Your task to perform on an android device: Open eBay Image 0: 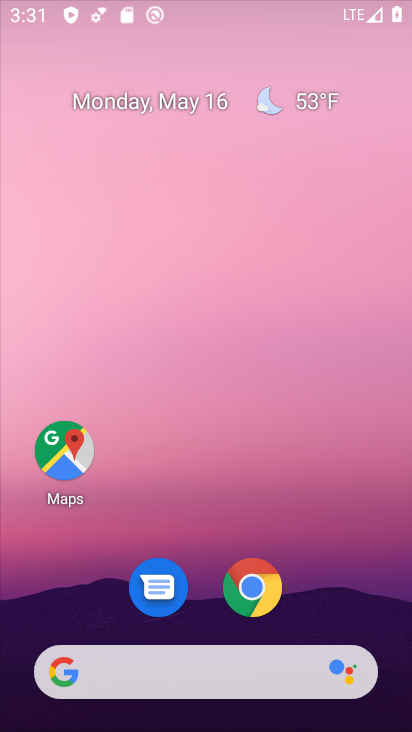
Step 0: drag from (121, 583) to (249, 108)
Your task to perform on an android device: Open eBay Image 1: 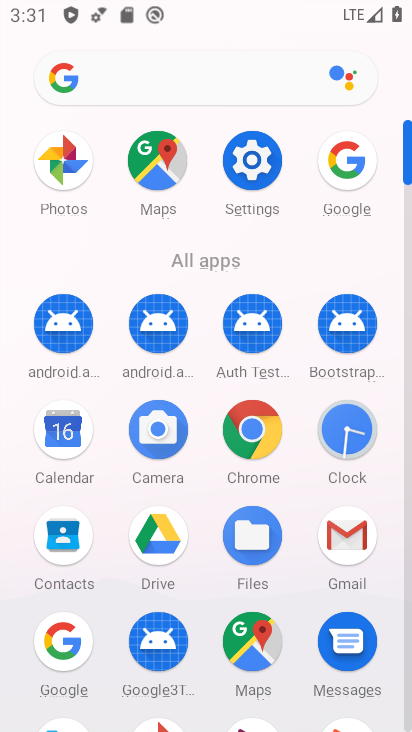
Step 1: click (264, 420)
Your task to perform on an android device: Open eBay Image 2: 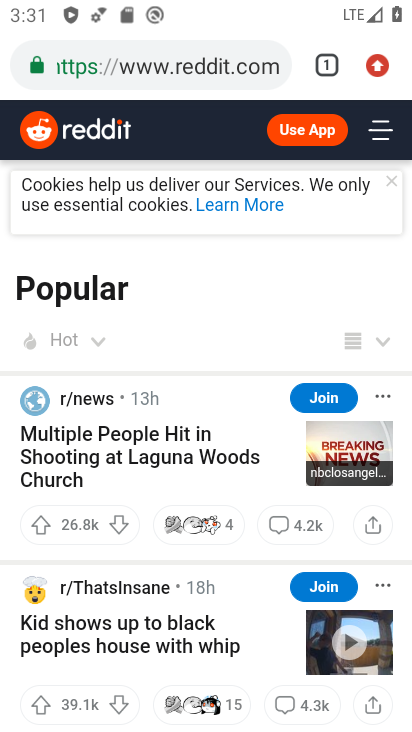
Step 2: drag from (380, 63) to (325, 190)
Your task to perform on an android device: Open eBay Image 3: 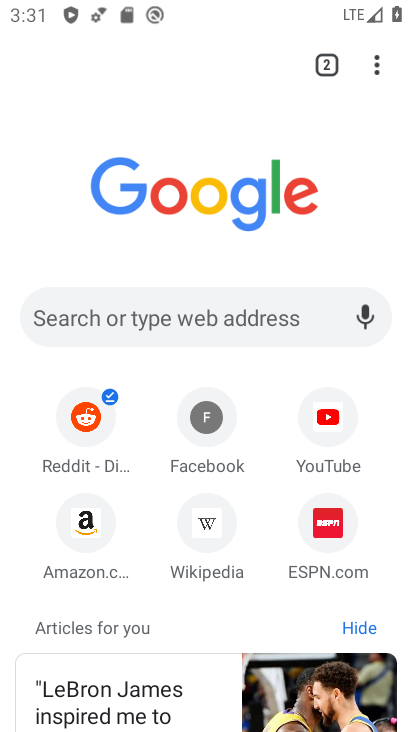
Step 3: click (179, 338)
Your task to perform on an android device: Open eBay Image 4: 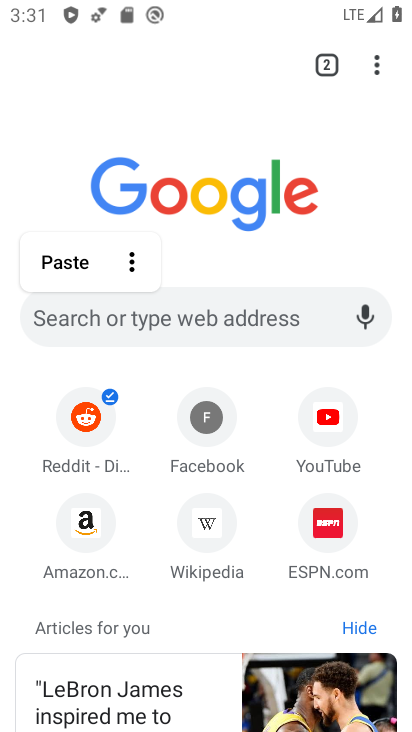
Step 4: click (137, 316)
Your task to perform on an android device: Open eBay Image 5: 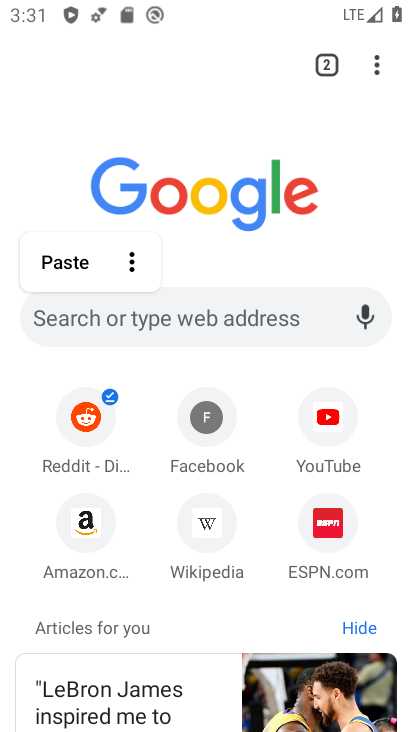
Step 5: type "ebay"
Your task to perform on an android device: Open eBay Image 6: 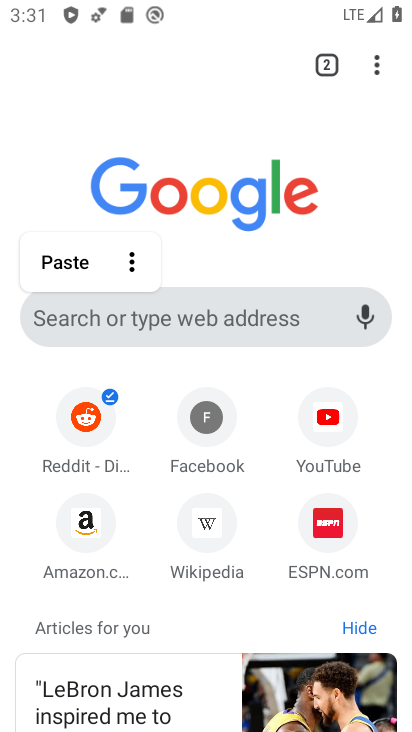
Step 6: click (227, 331)
Your task to perform on an android device: Open eBay Image 7: 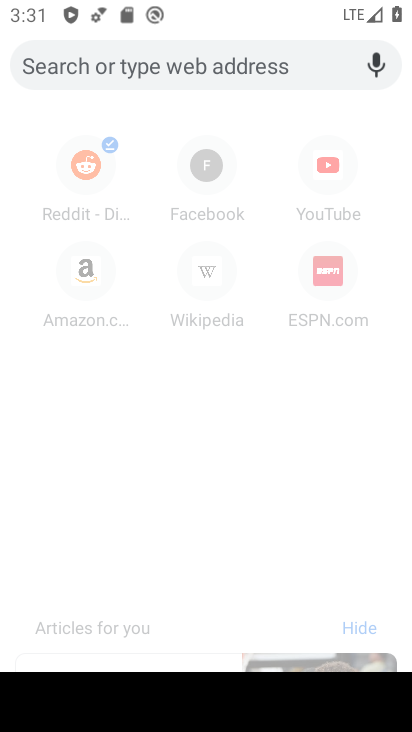
Step 7: type "eBay"
Your task to perform on an android device: Open eBay Image 8: 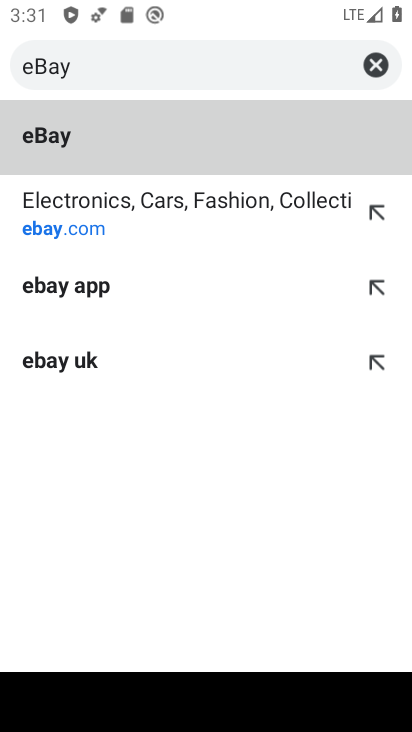
Step 8: click (87, 151)
Your task to perform on an android device: Open eBay Image 9: 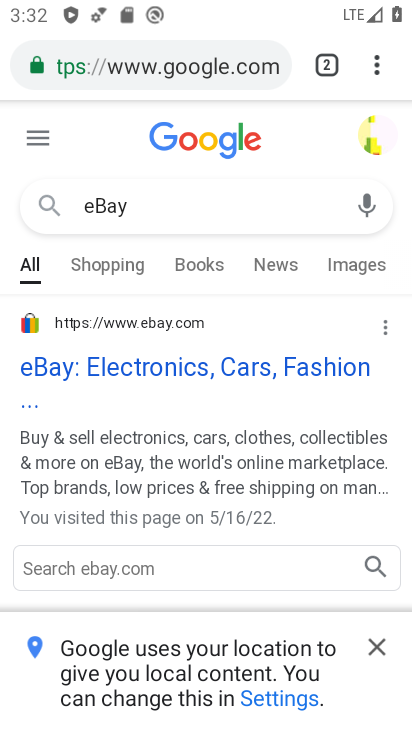
Step 9: task complete